Your task to perform on an android device: Go to privacy settings Image 0: 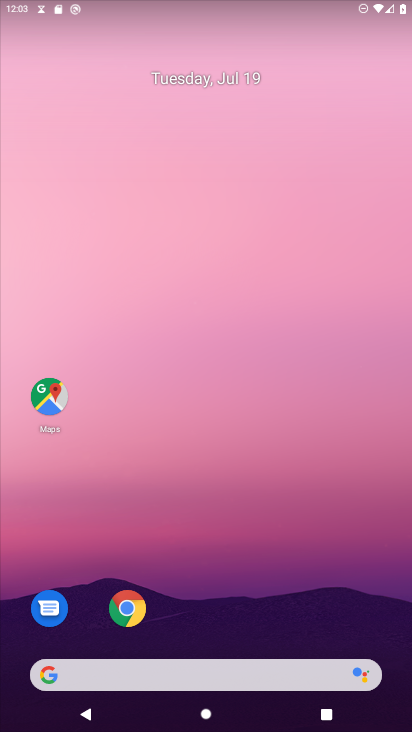
Step 0: drag from (283, 689) to (404, 25)
Your task to perform on an android device: Go to privacy settings Image 1: 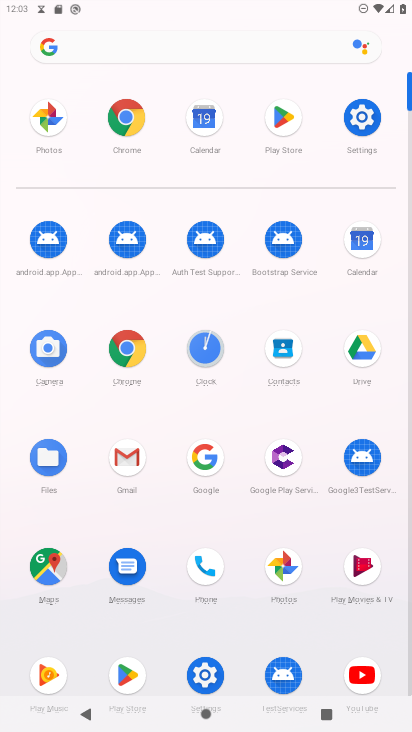
Step 1: click (376, 111)
Your task to perform on an android device: Go to privacy settings Image 2: 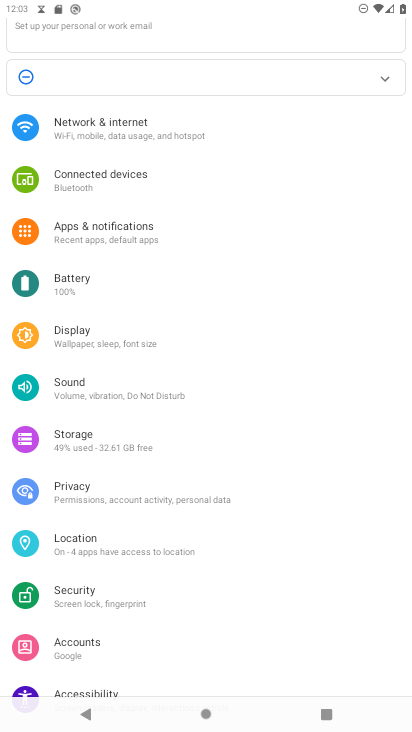
Step 2: click (137, 489)
Your task to perform on an android device: Go to privacy settings Image 3: 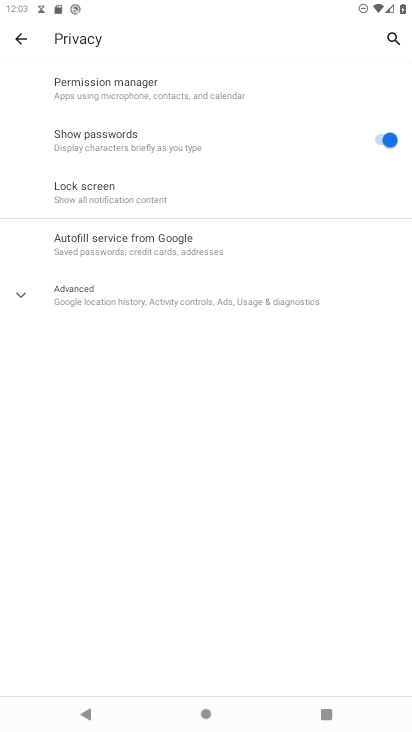
Step 3: task complete